Your task to perform on an android device: Open the contacts Image 0: 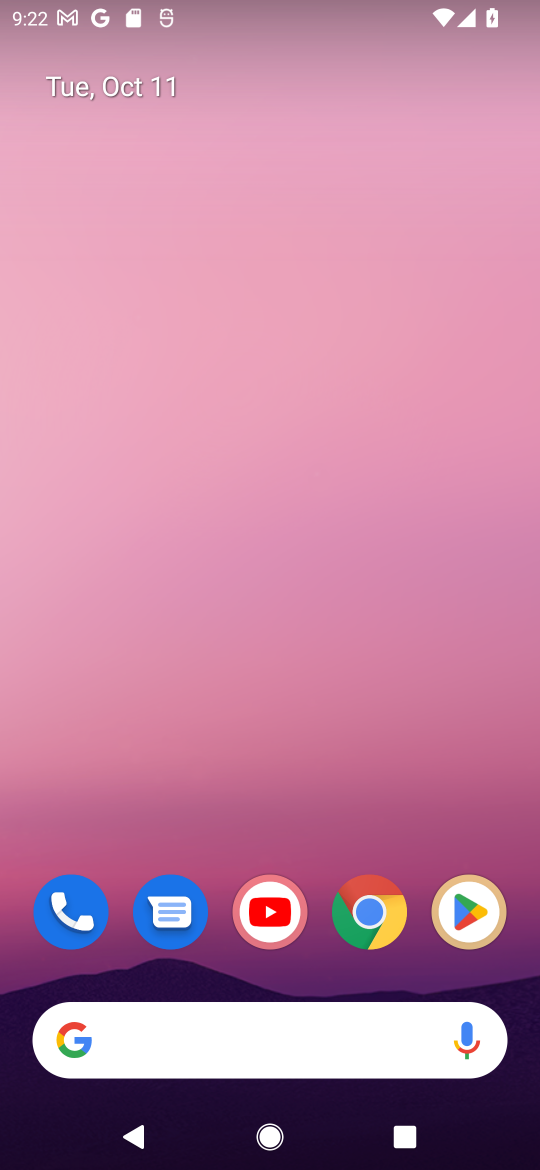
Step 0: drag from (417, 977) to (389, 319)
Your task to perform on an android device: Open the contacts Image 1: 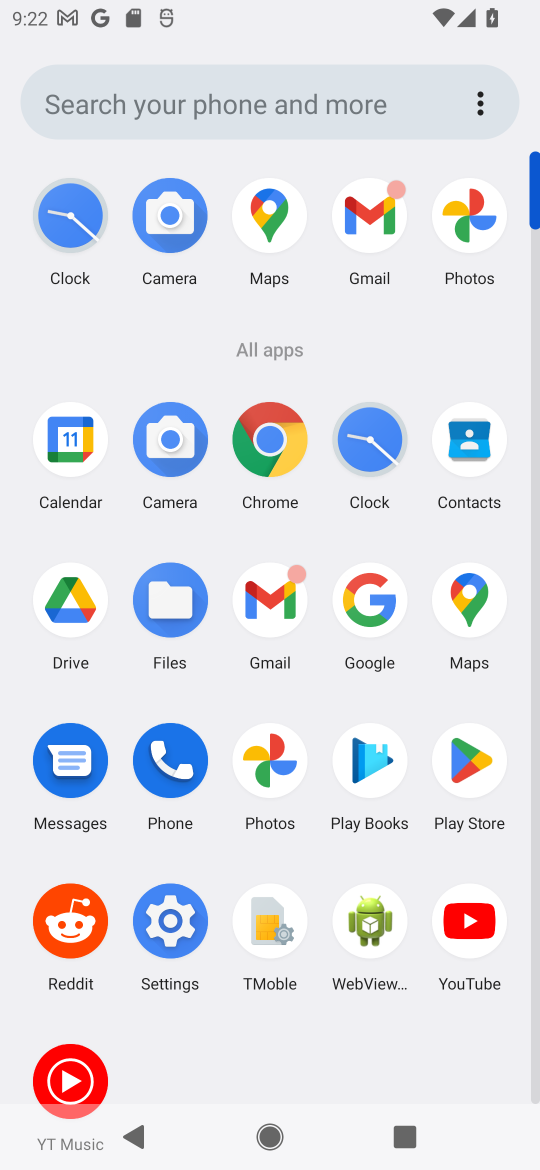
Step 1: click (471, 431)
Your task to perform on an android device: Open the contacts Image 2: 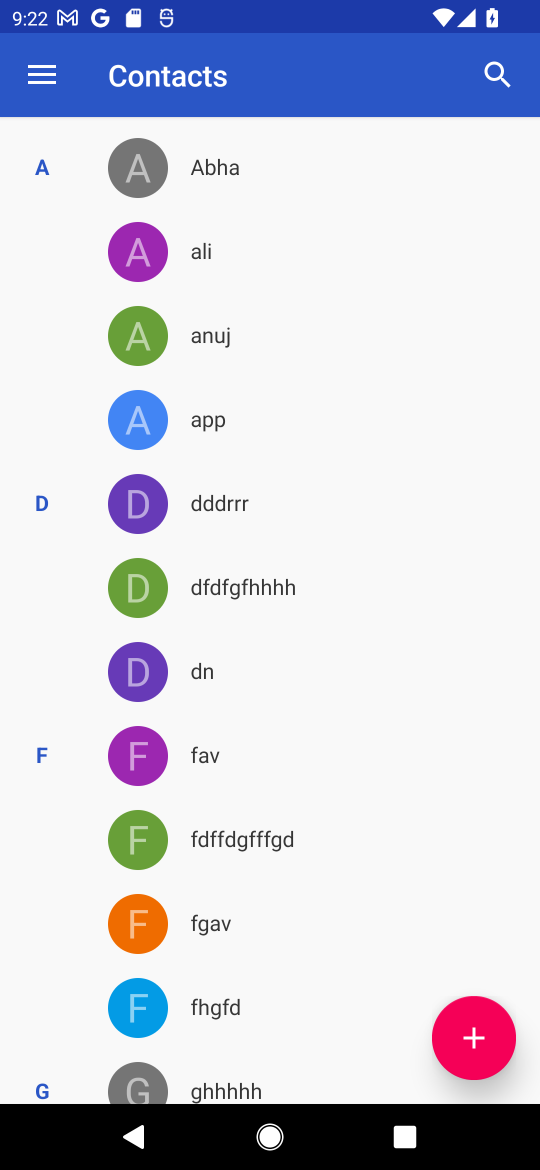
Step 2: task complete